Your task to perform on an android device: change alarm snooze length Image 0: 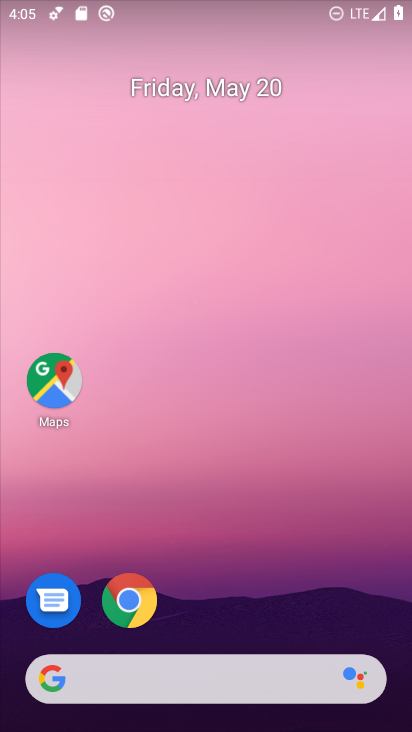
Step 0: drag from (203, 572) to (282, 59)
Your task to perform on an android device: change alarm snooze length Image 1: 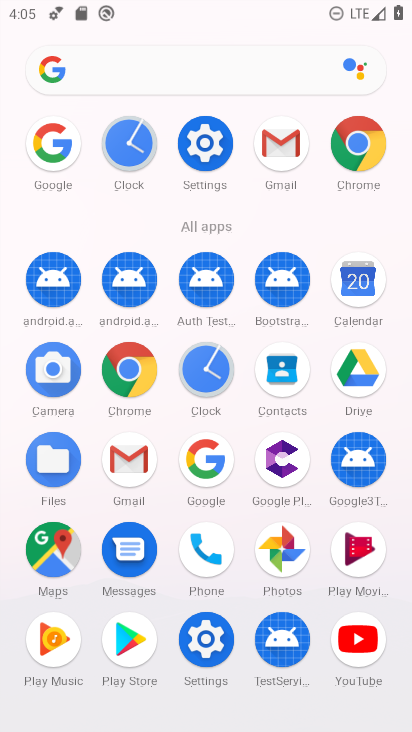
Step 1: click (210, 367)
Your task to perform on an android device: change alarm snooze length Image 2: 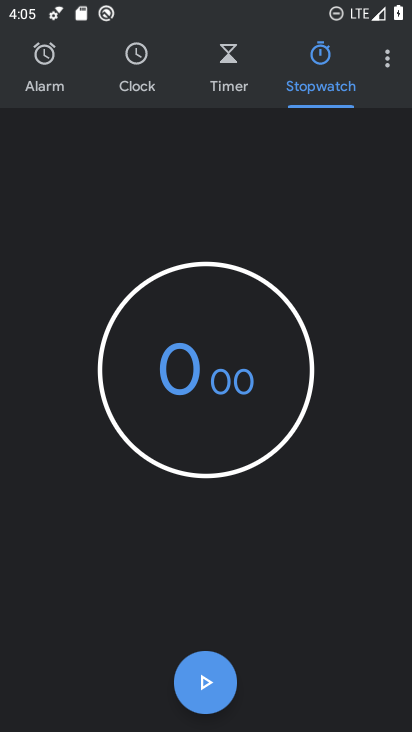
Step 2: click (383, 58)
Your task to perform on an android device: change alarm snooze length Image 3: 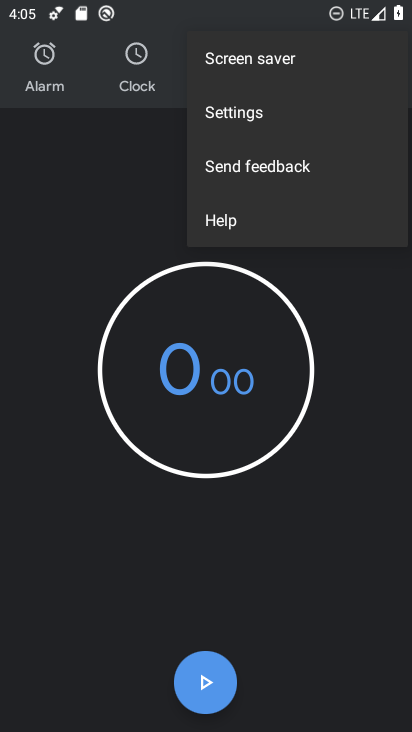
Step 3: click (235, 109)
Your task to perform on an android device: change alarm snooze length Image 4: 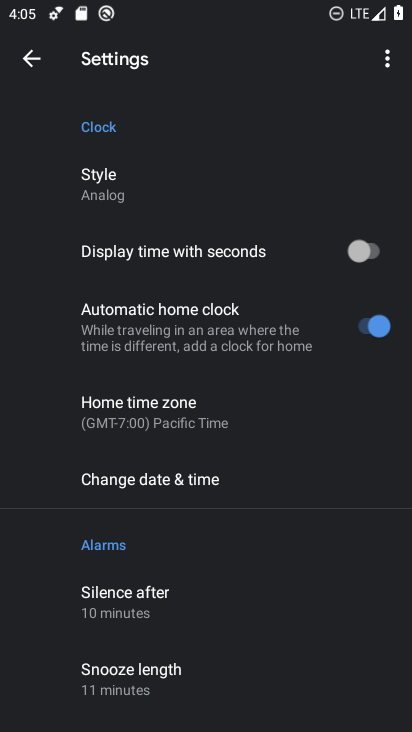
Step 4: click (133, 667)
Your task to perform on an android device: change alarm snooze length Image 5: 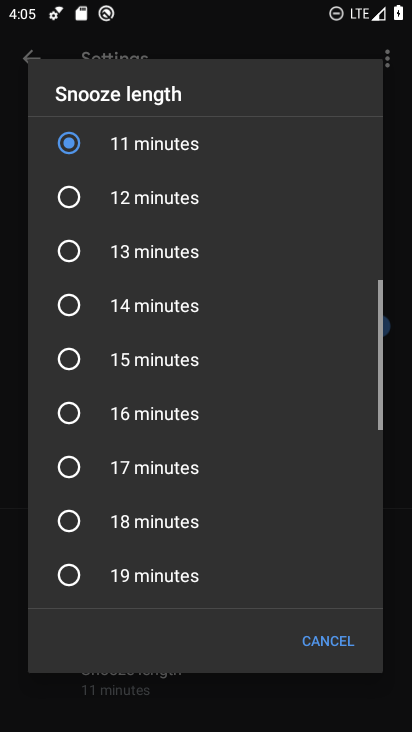
Step 5: click (104, 253)
Your task to perform on an android device: change alarm snooze length Image 6: 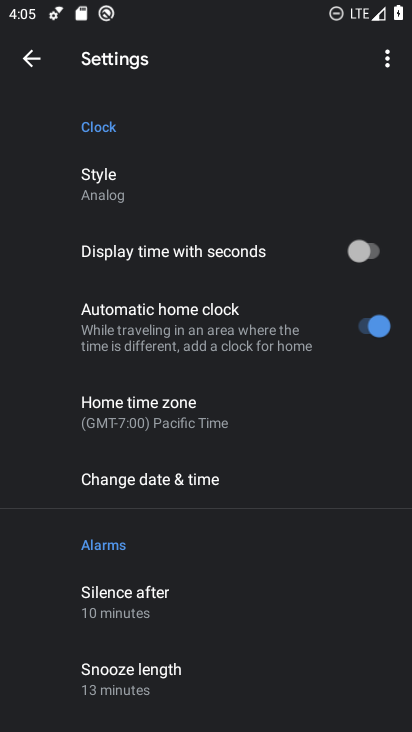
Step 6: task complete